Your task to perform on an android device: turn off wifi Image 0: 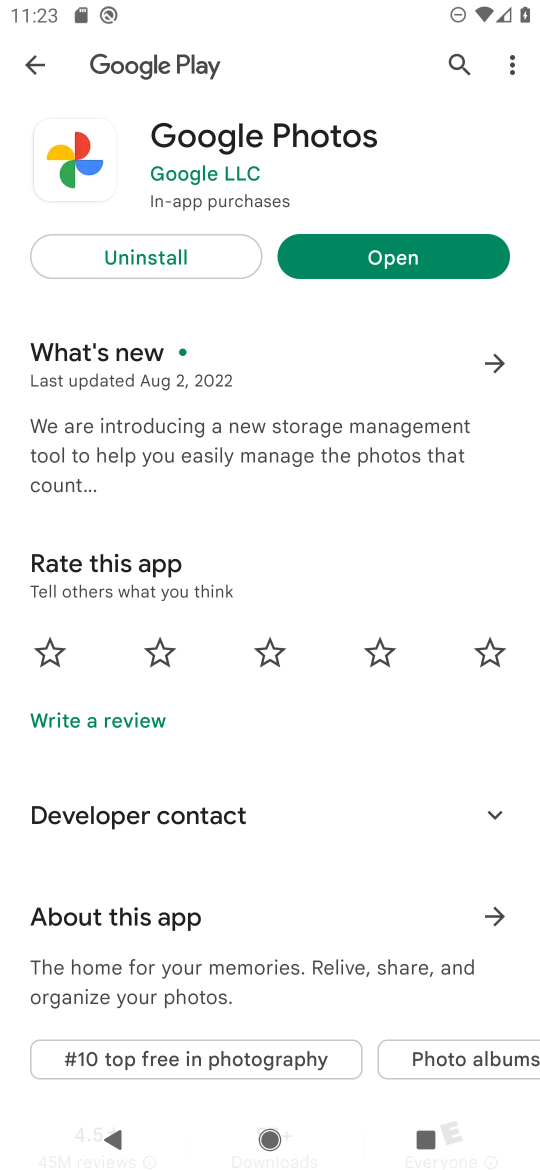
Step 0: press home button
Your task to perform on an android device: turn off wifi Image 1: 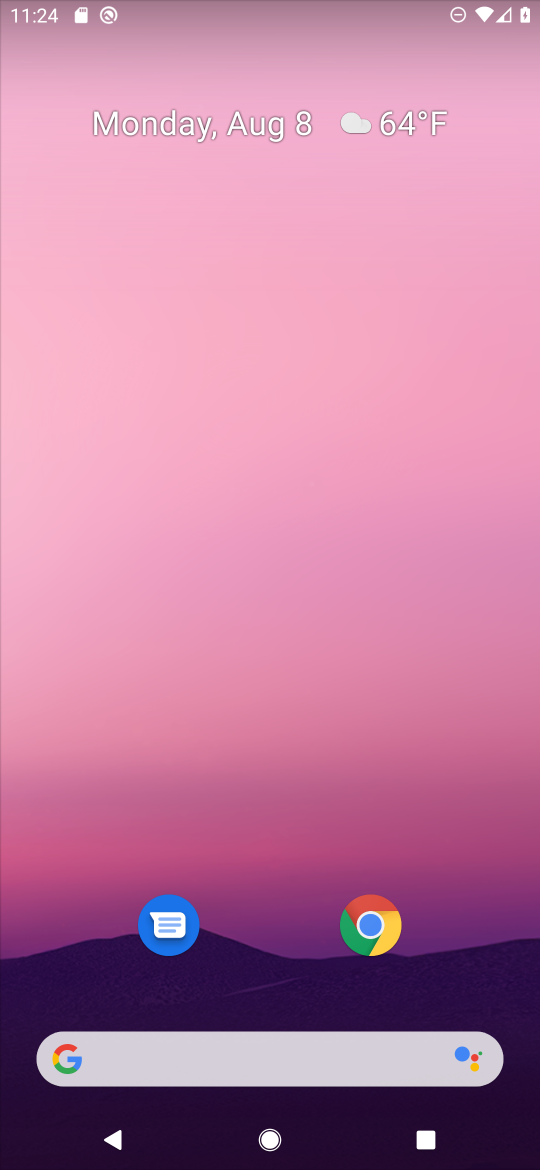
Step 1: drag from (229, 968) to (273, 116)
Your task to perform on an android device: turn off wifi Image 2: 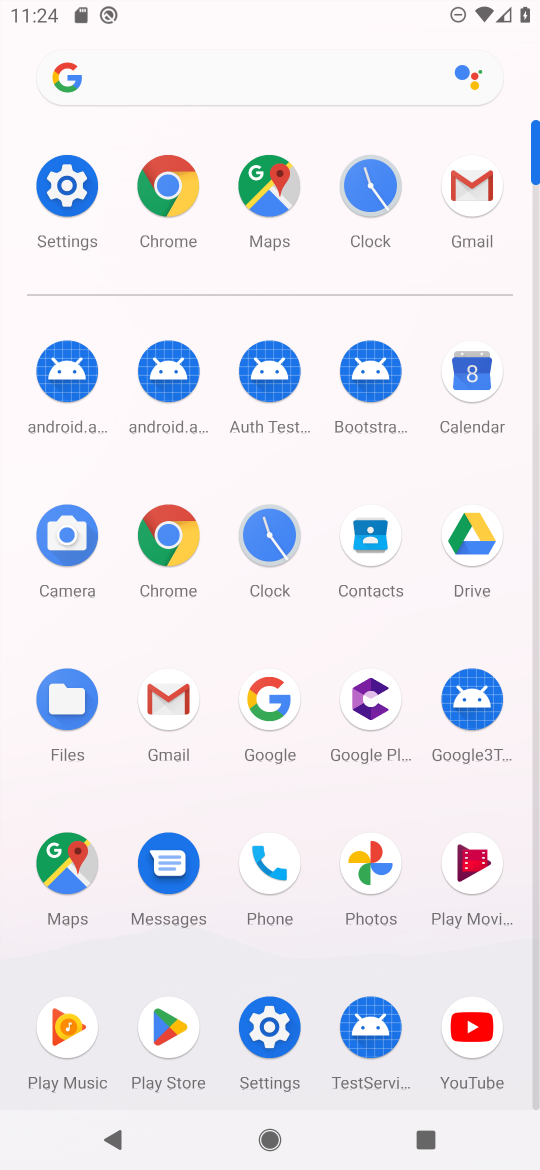
Step 2: click (249, 1028)
Your task to perform on an android device: turn off wifi Image 3: 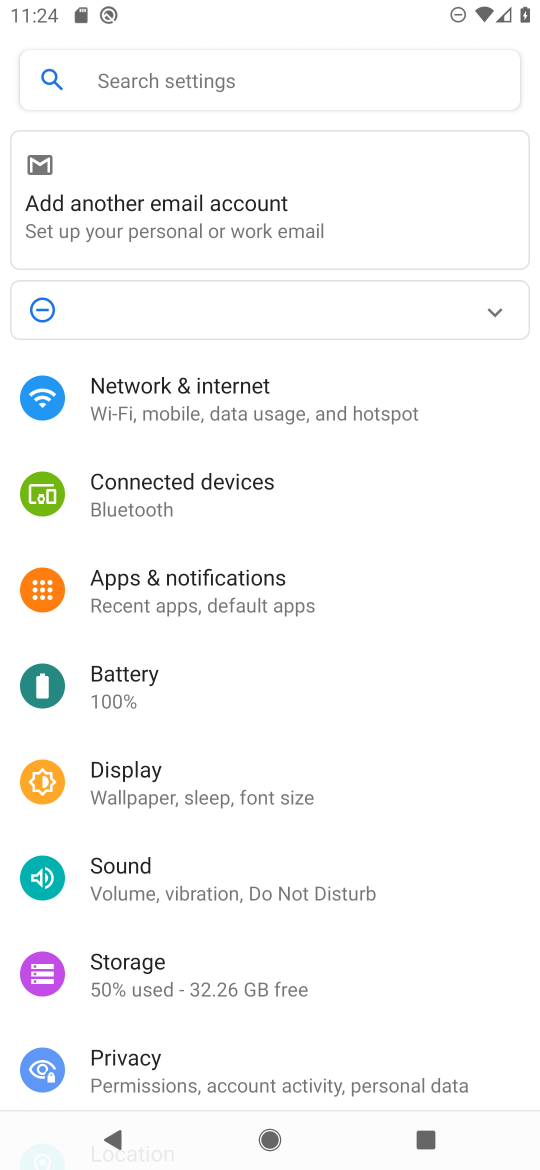
Step 3: click (148, 400)
Your task to perform on an android device: turn off wifi Image 4: 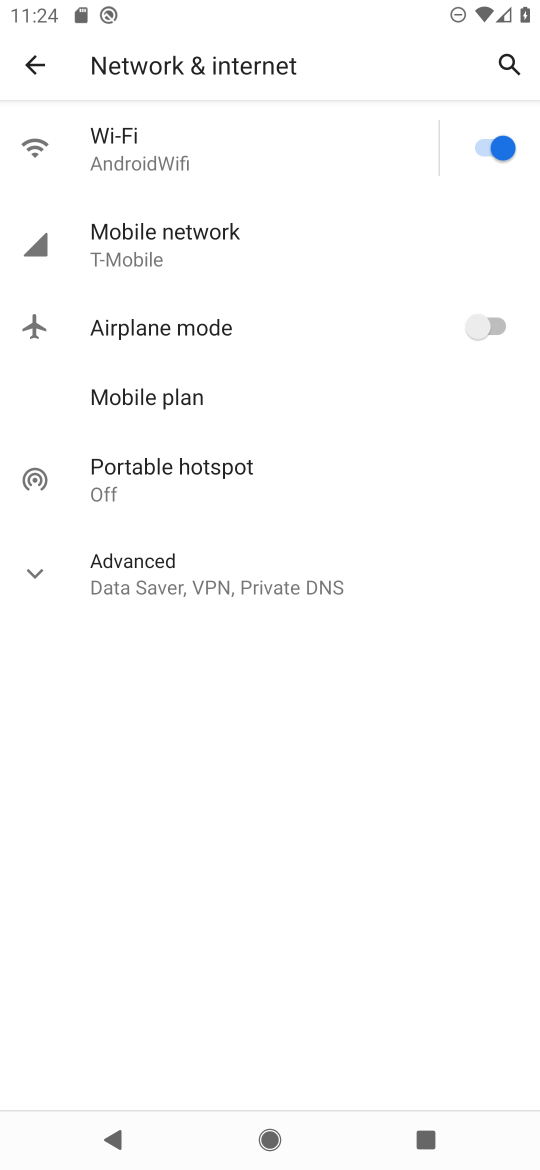
Step 4: click (495, 142)
Your task to perform on an android device: turn off wifi Image 5: 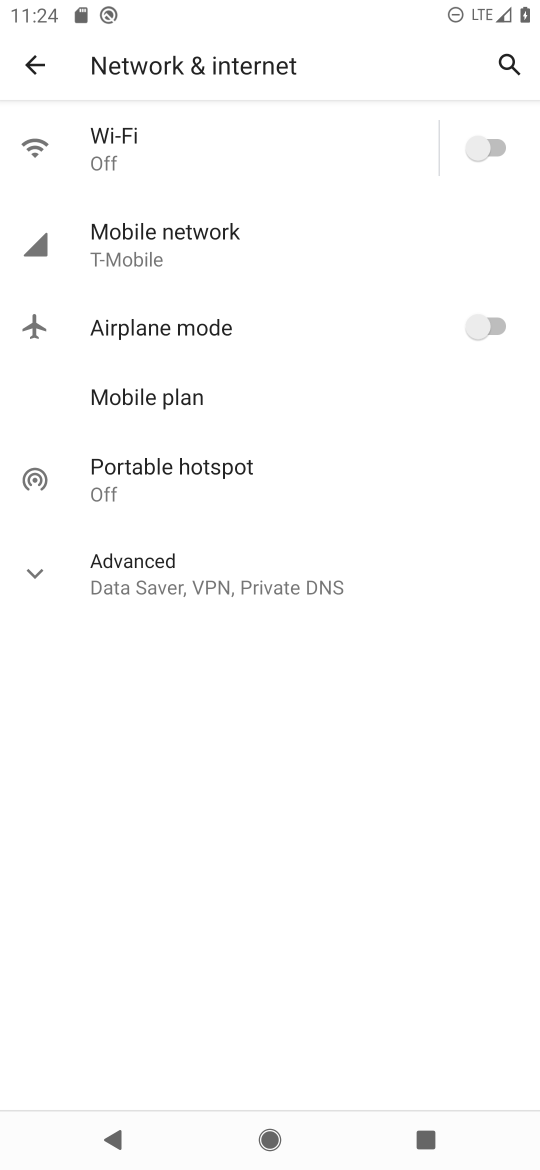
Step 5: task complete